Your task to perform on an android device: change notification settings in the gmail app Image 0: 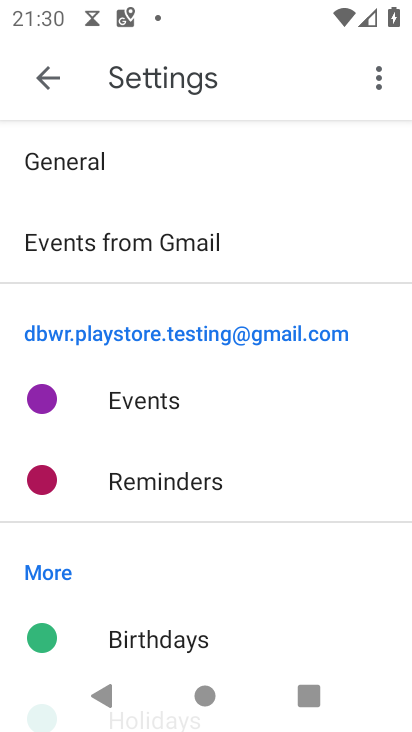
Step 0: press home button
Your task to perform on an android device: change notification settings in the gmail app Image 1: 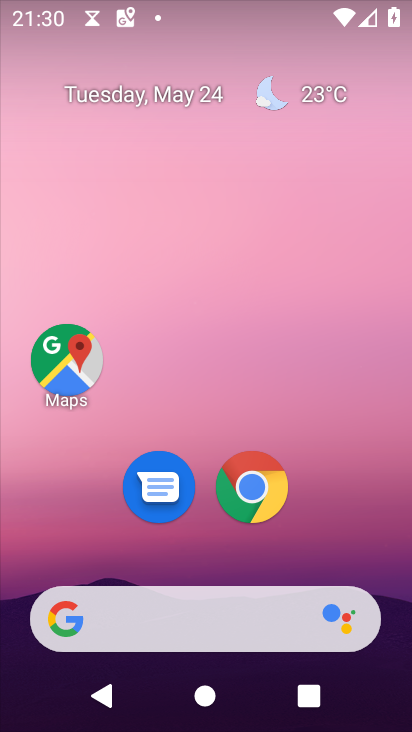
Step 1: drag from (364, 544) to (305, 3)
Your task to perform on an android device: change notification settings in the gmail app Image 2: 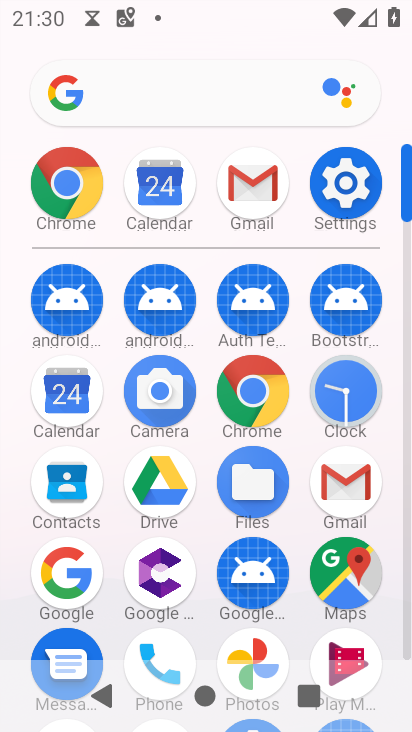
Step 2: click (261, 214)
Your task to perform on an android device: change notification settings in the gmail app Image 3: 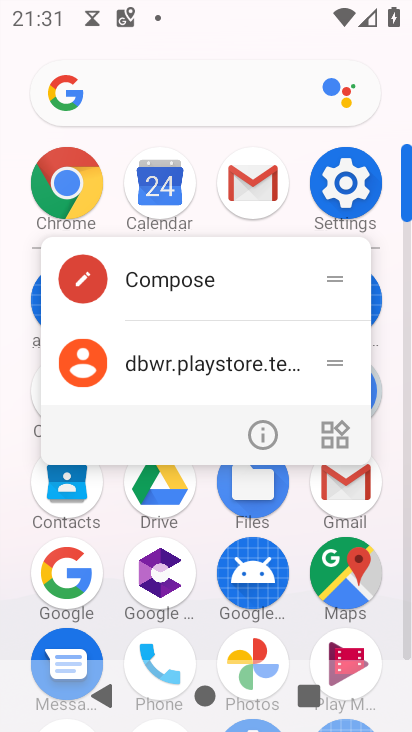
Step 3: click (251, 443)
Your task to perform on an android device: change notification settings in the gmail app Image 4: 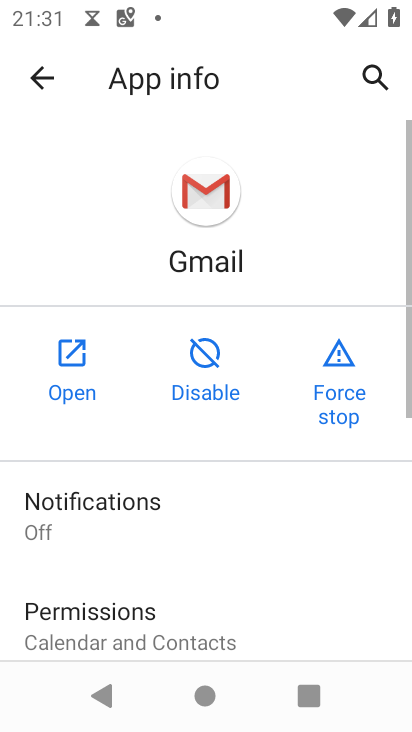
Step 4: click (109, 514)
Your task to perform on an android device: change notification settings in the gmail app Image 5: 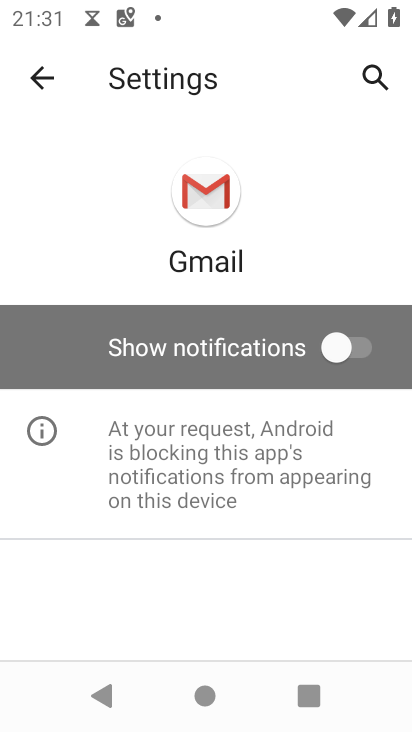
Step 5: click (282, 343)
Your task to perform on an android device: change notification settings in the gmail app Image 6: 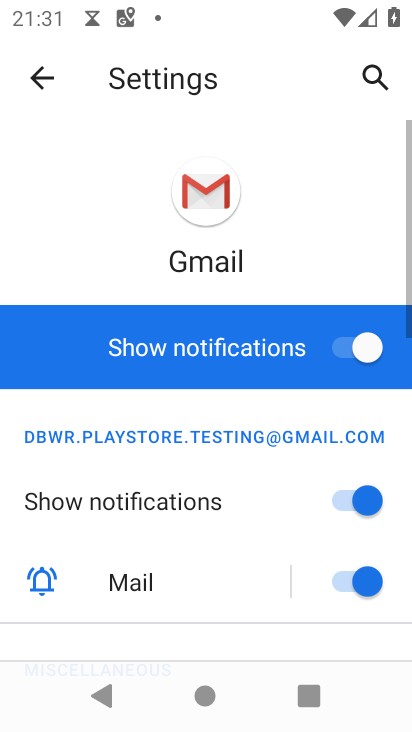
Step 6: task complete